Your task to perform on an android device: Go to wifi settings Image 0: 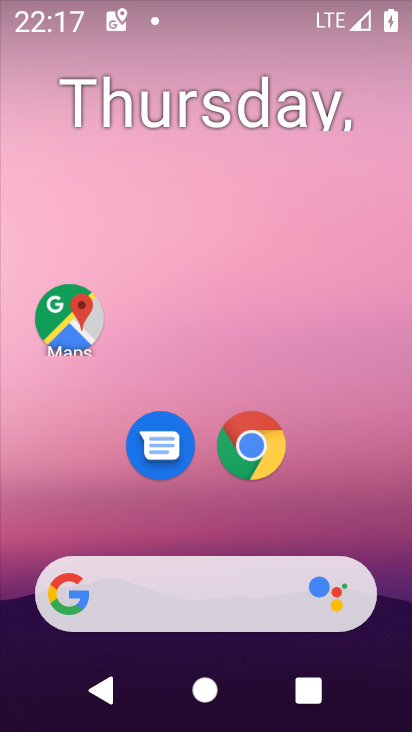
Step 0: drag from (283, 523) to (314, 217)
Your task to perform on an android device: Go to wifi settings Image 1: 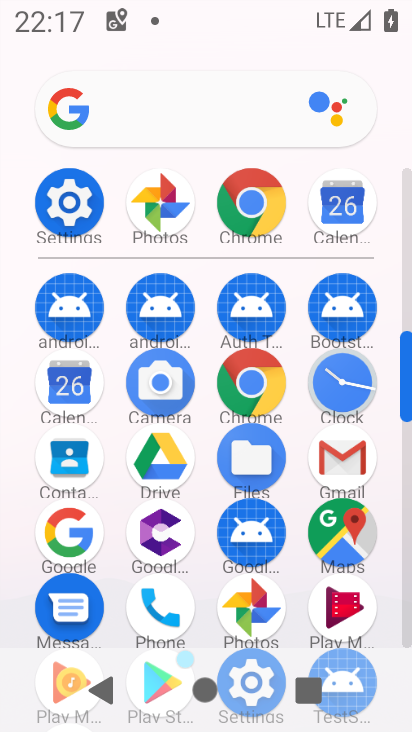
Step 1: drag from (202, 273) to (196, 102)
Your task to perform on an android device: Go to wifi settings Image 2: 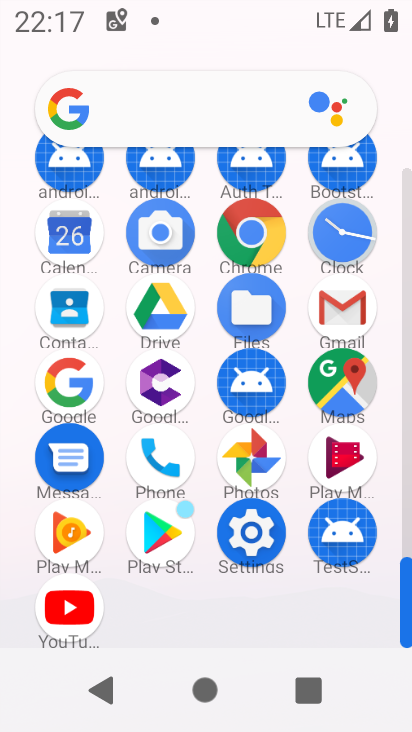
Step 2: click (251, 538)
Your task to perform on an android device: Go to wifi settings Image 3: 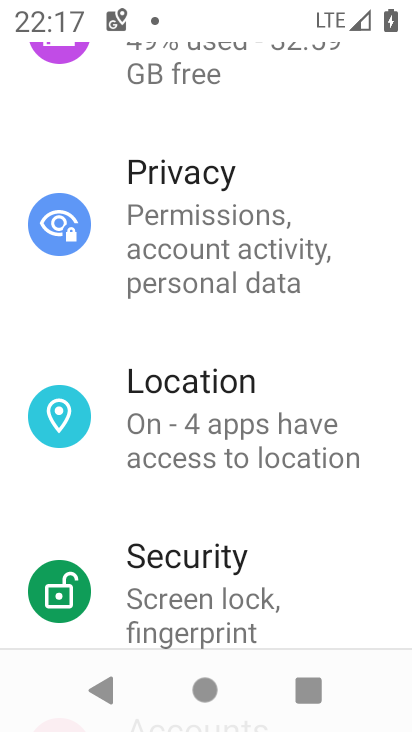
Step 3: drag from (294, 141) to (253, 640)
Your task to perform on an android device: Go to wifi settings Image 4: 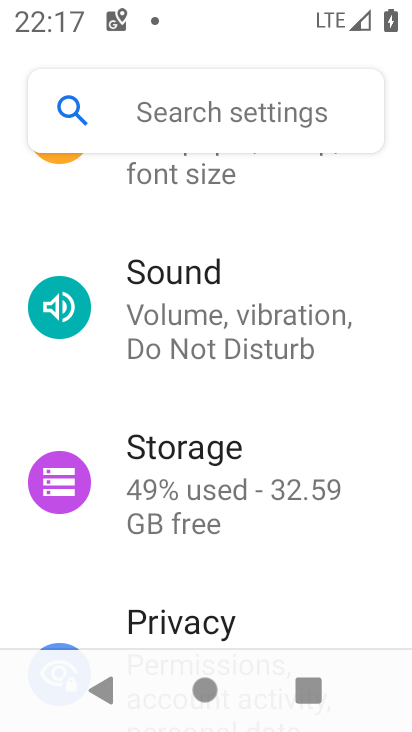
Step 4: drag from (247, 251) to (294, 666)
Your task to perform on an android device: Go to wifi settings Image 5: 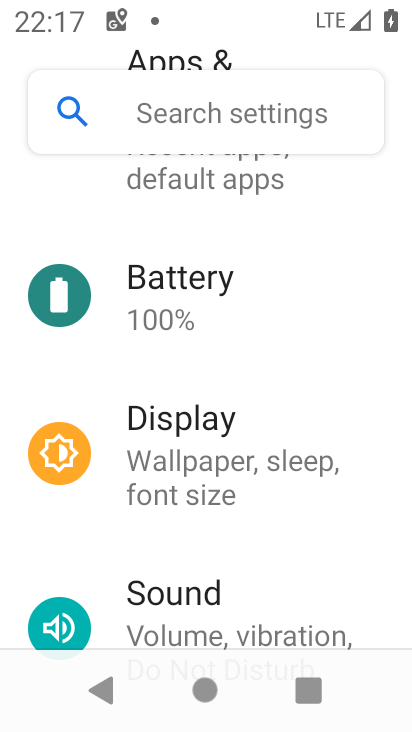
Step 5: drag from (235, 351) to (274, 650)
Your task to perform on an android device: Go to wifi settings Image 6: 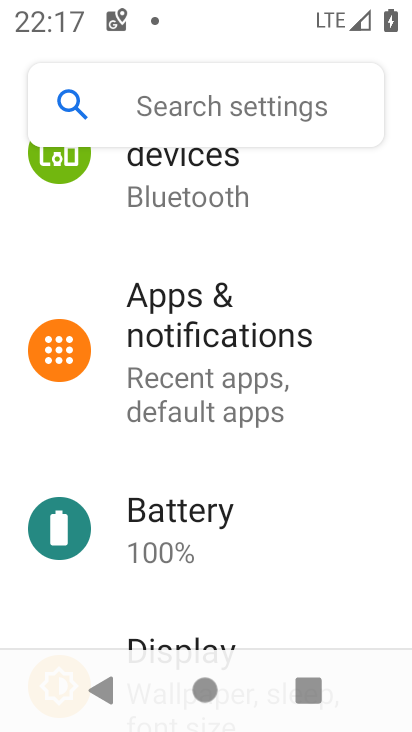
Step 6: drag from (280, 260) to (273, 679)
Your task to perform on an android device: Go to wifi settings Image 7: 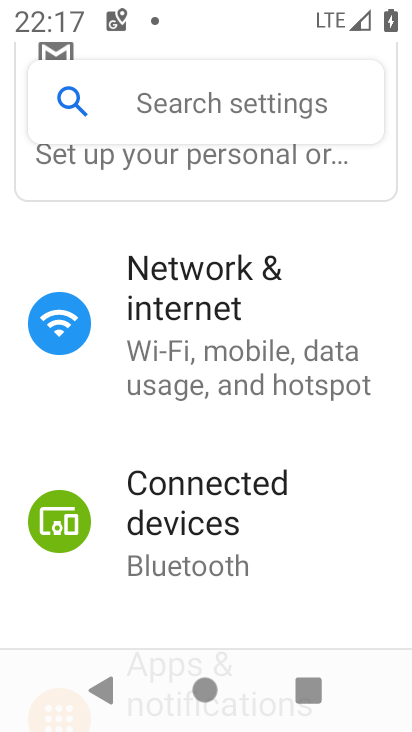
Step 7: click (234, 362)
Your task to perform on an android device: Go to wifi settings Image 8: 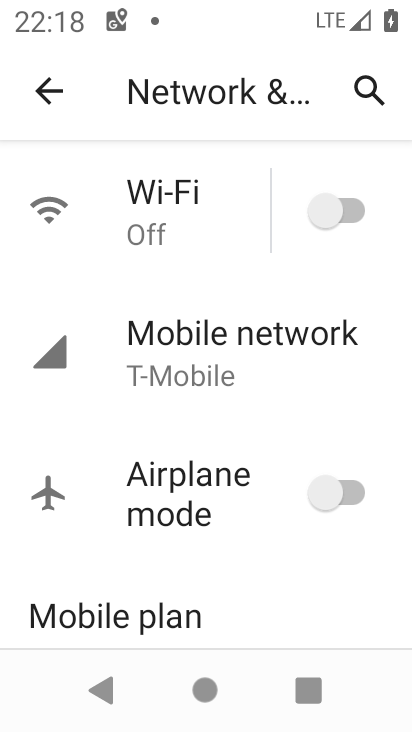
Step 8: click (183, 226)
Your task to perform on an android device: Go to wifi settings Image 9: 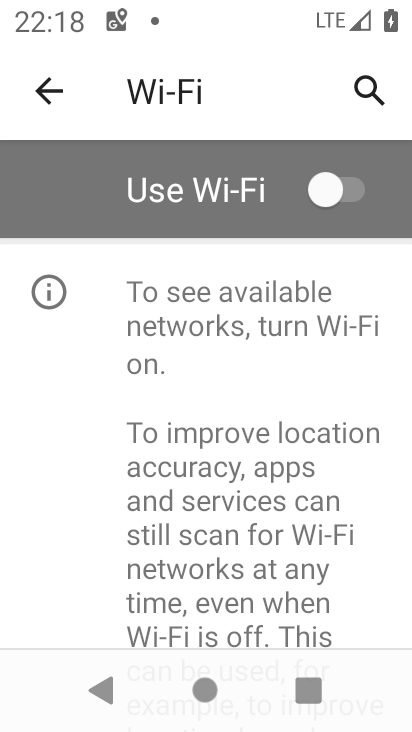
Step 9: task complete